Your task to perform on an android device: all mails in gmail Image 0: 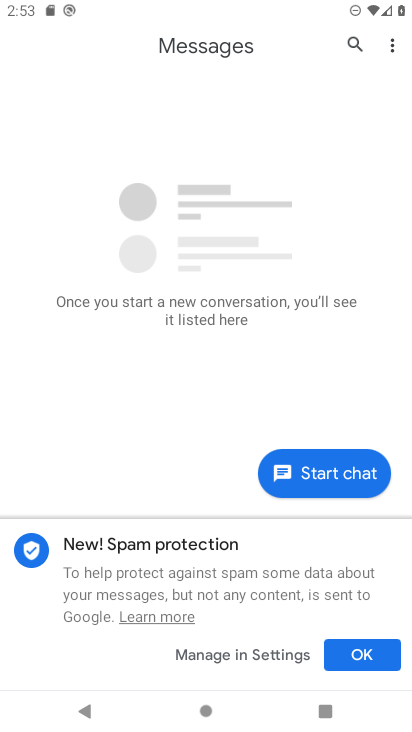
Step 0: press home button
Your task to perform on an android device: all mails in gmail Image 1: 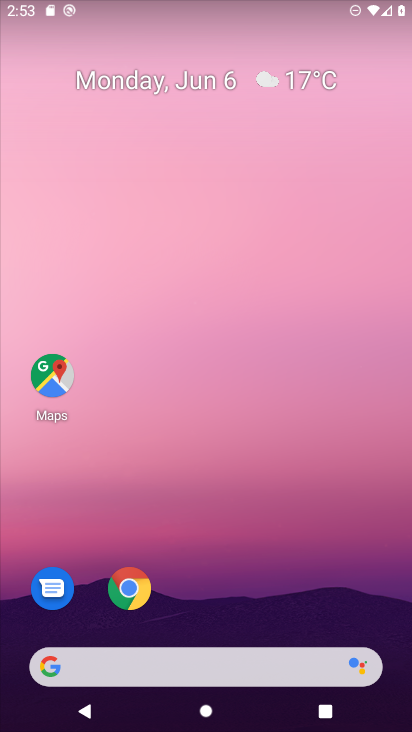
Step 1: drag from (267, 701) to (248, 118)
Your task to perform on an android device: all mails in gmail Image 2: 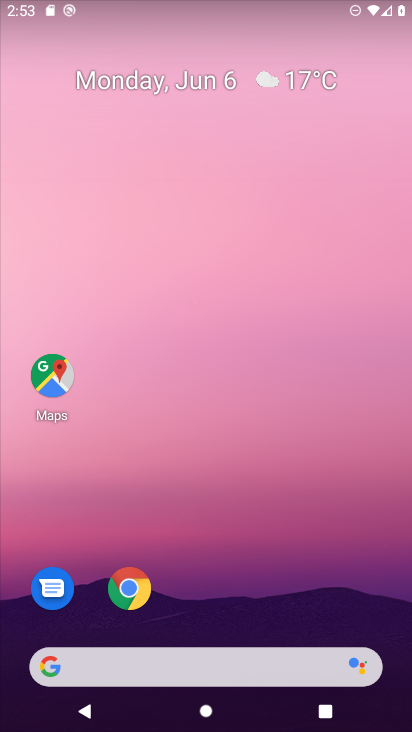
Step 2: drag from (205, 536) to (172, 24)
Your task to perform on an android device: all mails in gmail Image 3: 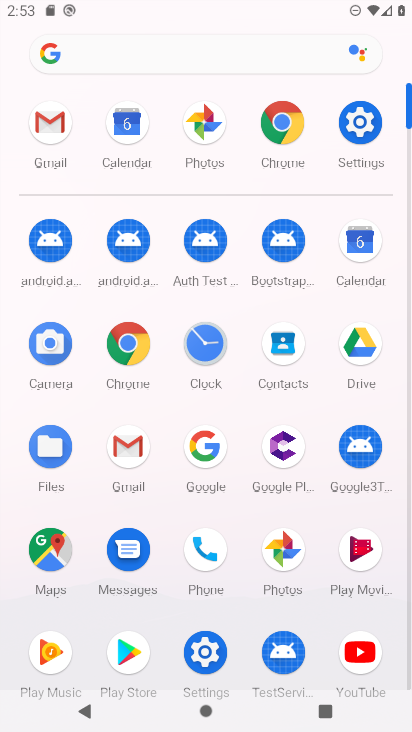
Step 3: click (48, 133)
Your task to perform on an android device: all mails in gmail Image 4: 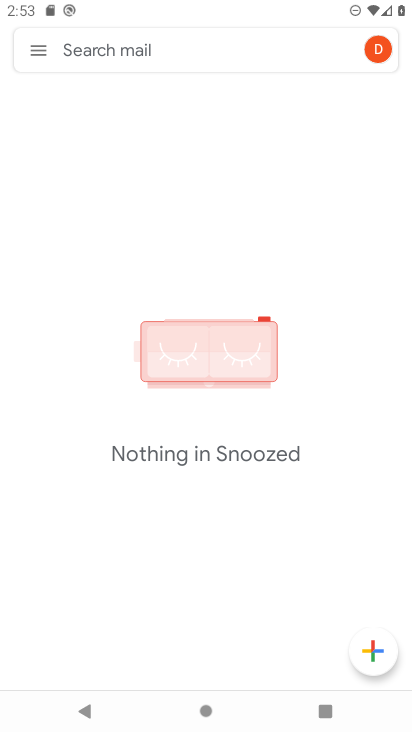
Step 4: click (20, 54)
Your task to perform on an android device: all mails in gmail Image 5: 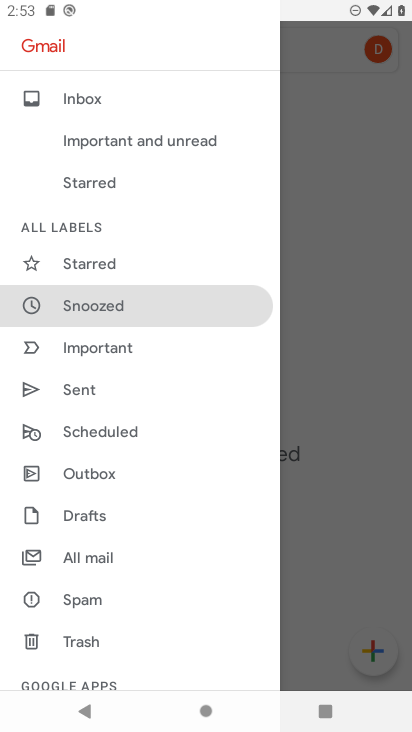
Step 5: click (136, 549)
Your task to perform on an android device: all mails in gmail Image 6: 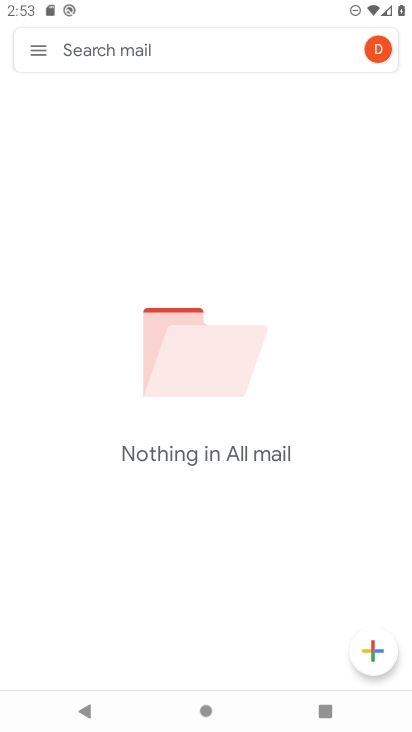
Step 6: task complete